Your task to perform on an android device: Search for Mexican restaurants on Maps Image 0: 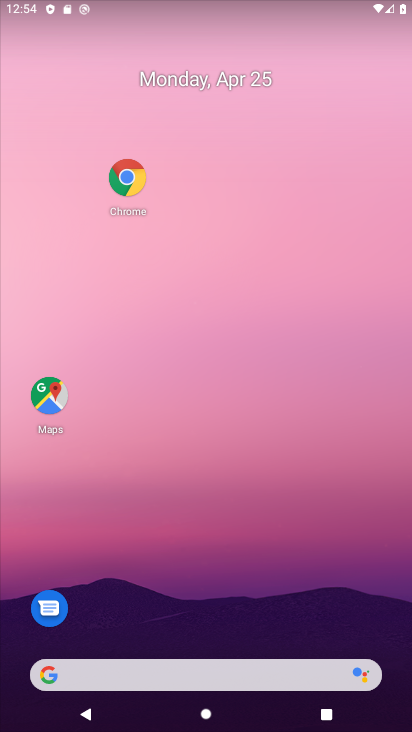
Step 0: drag from (283, 379) to (320, 171)
Your task to perform on an android device: Search for Mexican restaurants on Maps Image 1: 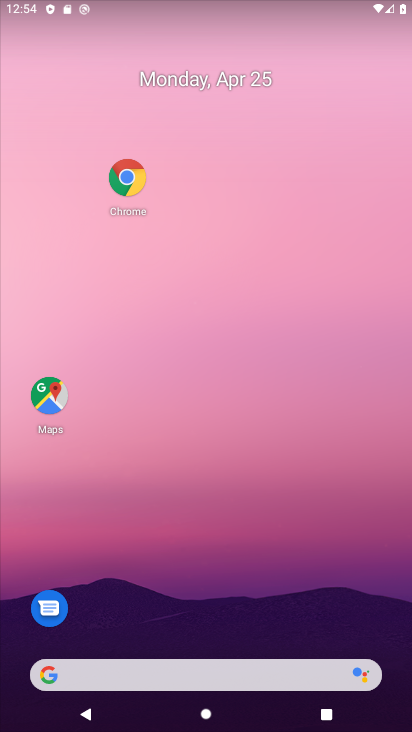
Step 1: drag from (268, 604) to (284, 131)
Your task to perform on an android device: Search for Mexican restaurants on Maps Image 2: 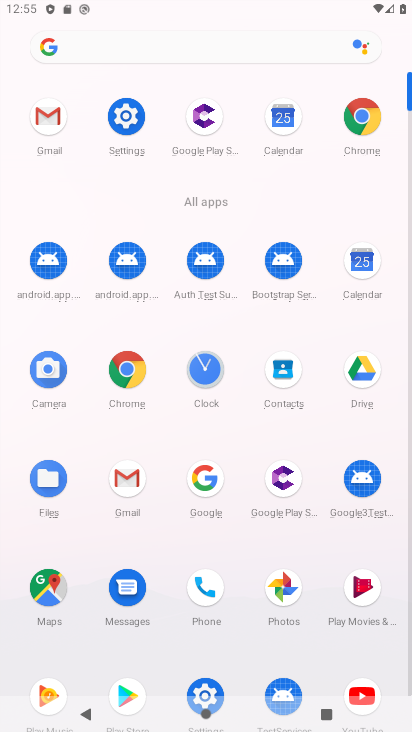
Step 2: click (38, 592)
Your task to perform on an android device: Search for Mexican restaurants on Maps Image 3: 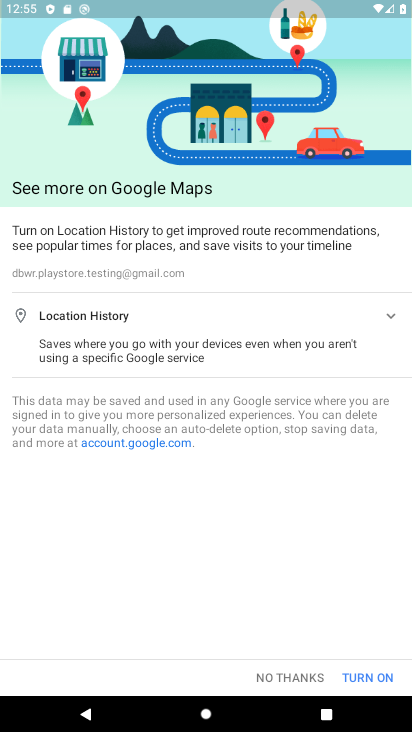
Step 3: click (253, 678)
Your task to perform on an android device: Search for Mexican restaurants on Maps Image 4: 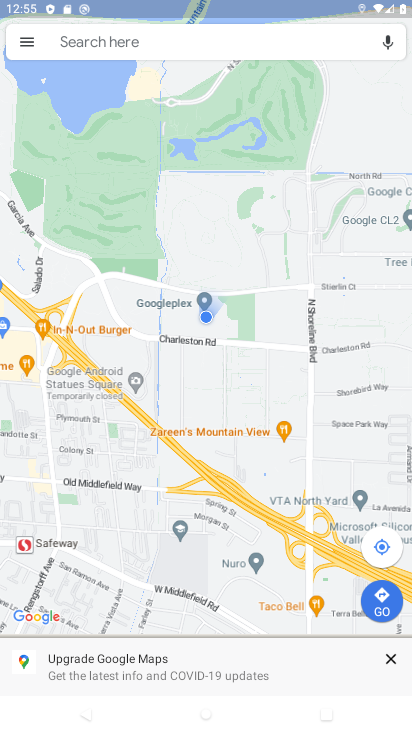
Step 4: click (273, 44)
Your task to perform on an android device: Search for Mexican restaurants on Maps Image 5: 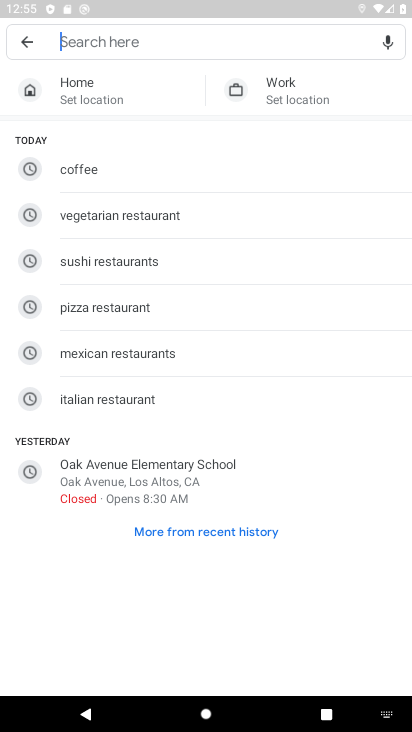
Step 5: type "M"
Your task to perform on an android device: Search for Mexican restaurants on Maps Image 6: 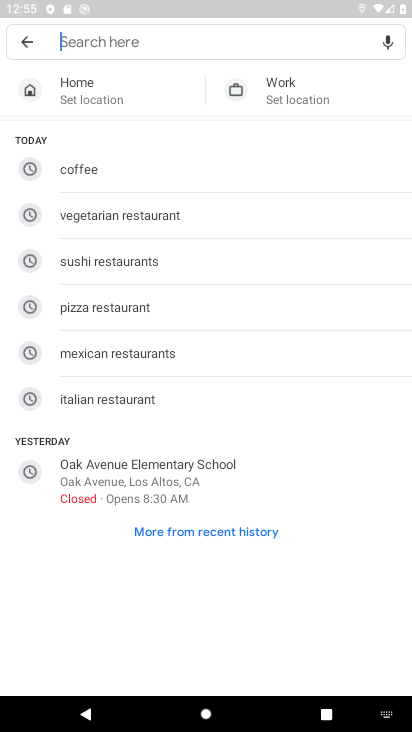
Step 6: click (86, 358)
Your task to perform on an android device: Search for Mexican restaurants on Maps Image 7: 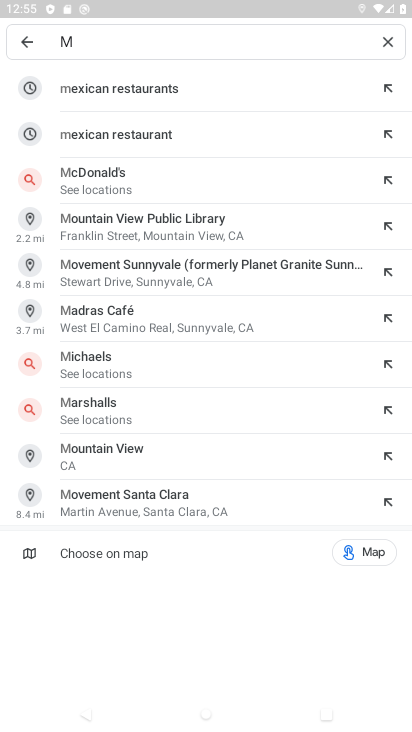
Step 7: click (144, 110)
Your task to perform on an android device: Search for Mexican restaurants on Maps Image 8: 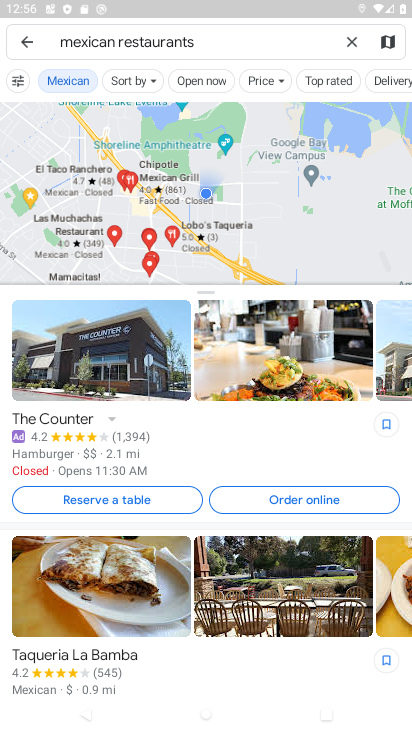
Step 8: task complete